Your task to perform on an android device: Open Yahoo.com Image 0: 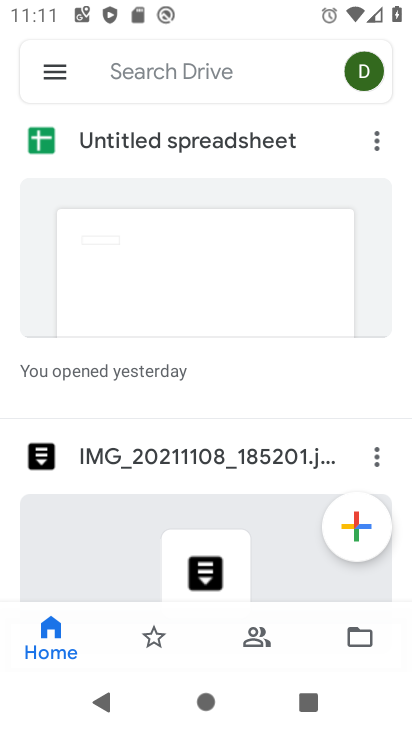
Step 0: press home button
Your task to perform on an android device: Open Yahoo.com Image 1: 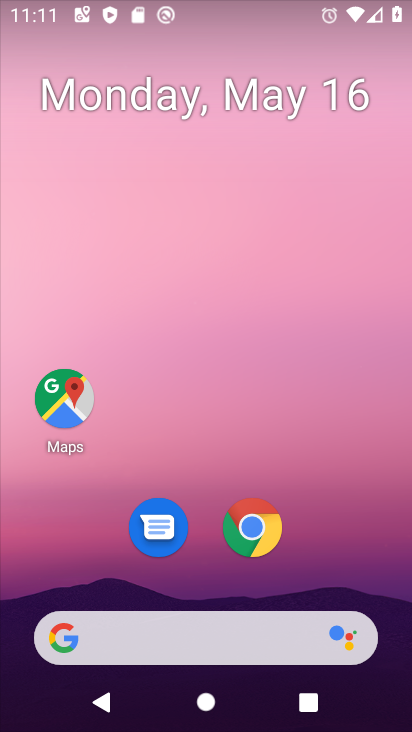
Step 1: click (253, 531)
Your task to perform on an android device: Open Yahoo.com Image 2: 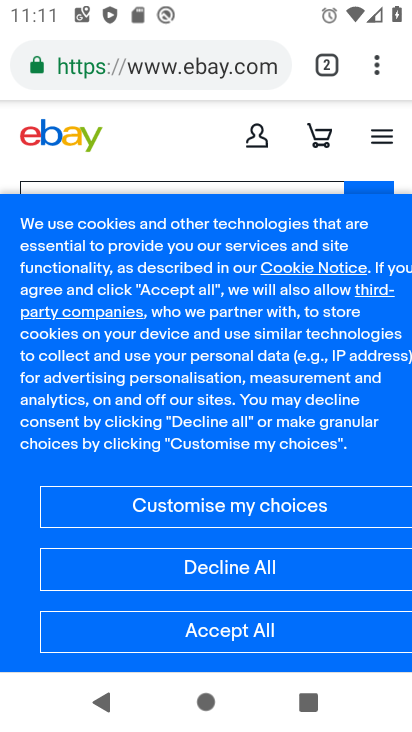
Step 2: click (147, 70)
Your task to perform on an android device: Open Yahoo.com Image 3: 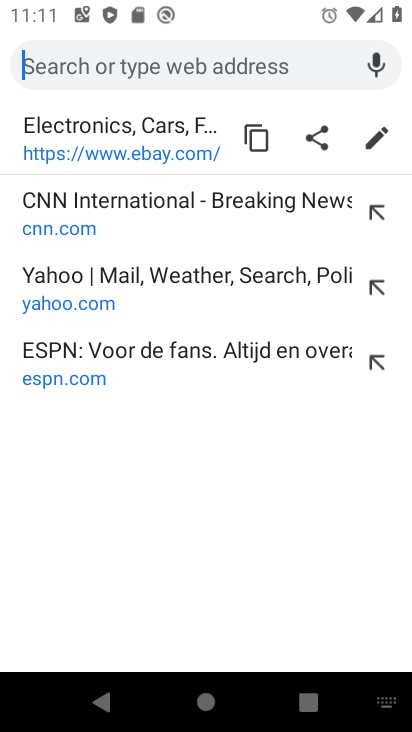
Step 3: click (56, 276)
Your task to perform on an android device: Open Yahoo.com Image 4: 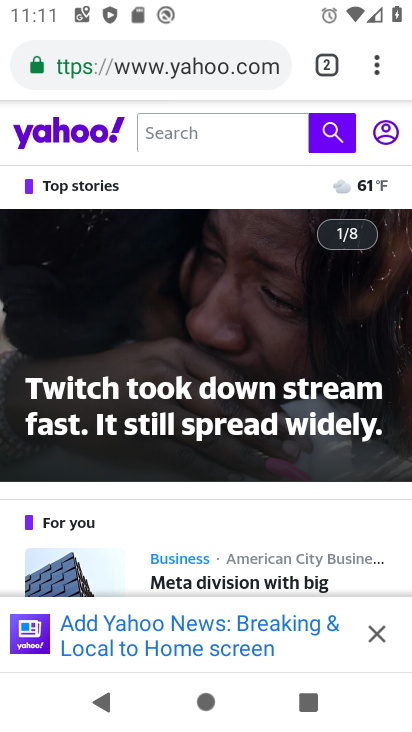
Step 4: task complete